Your task to perform on an android device: snooze an email in the gmail app Image 0: 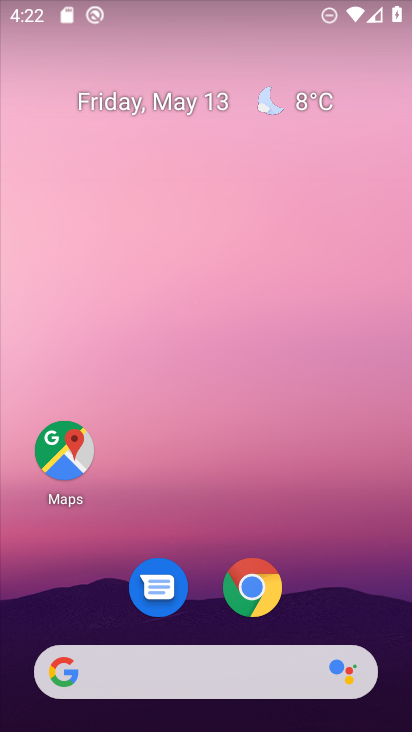
Step 0: drag from (200, 610) to (181, 189)
Your task to perform on an android device: snooze an email in the gmail app Image 1: 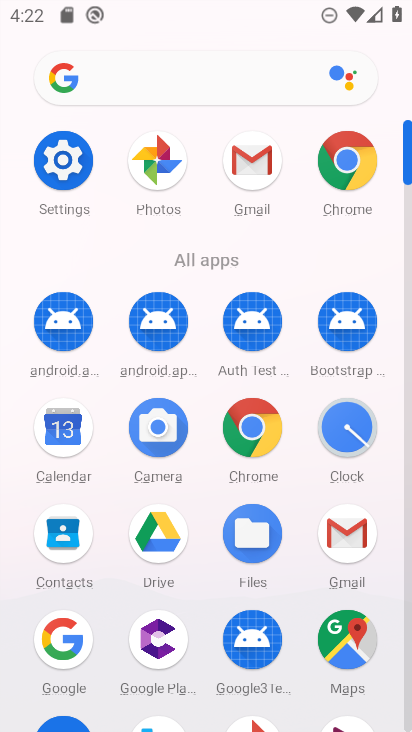
Step 1: click (234, 173)
Your task to perform on an android device: snooze an email in the gmail app Image 2: 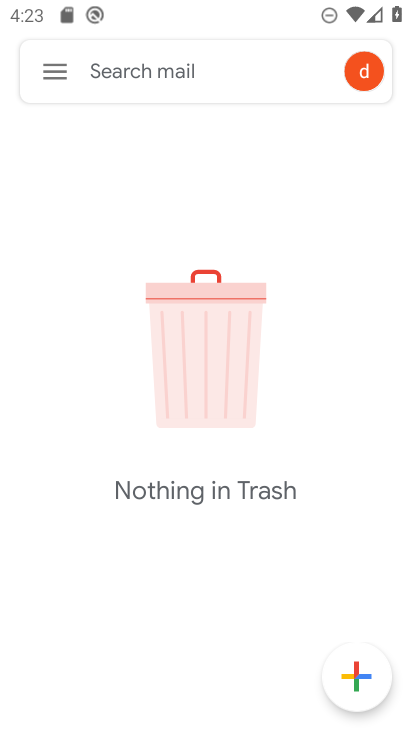
Step 2: click (65, 71)
Your task to perform on an android device: snooze an email in the gmail app Image 3: 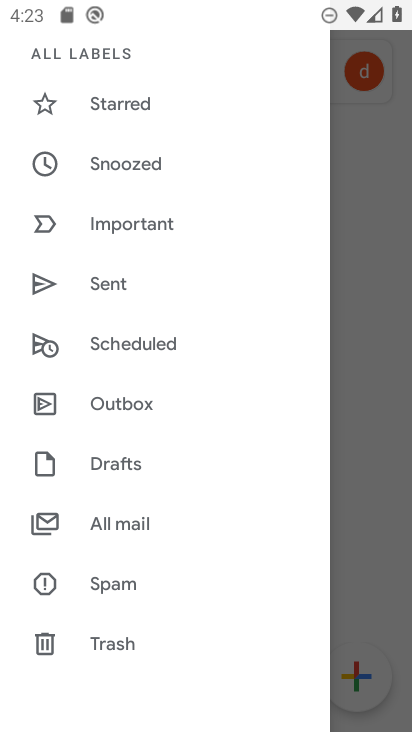
Step 3: click (143, 509)
Your task to perform on an android device: snooze an email in the gmail app Image 4: 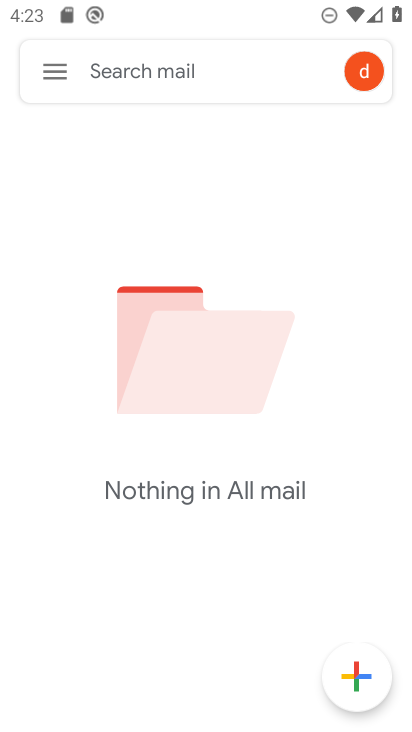
Step 4: task complete